Your task to perform on an android device: Add macbook pro to the cart on ebay.com, then select checkout. Image 0: 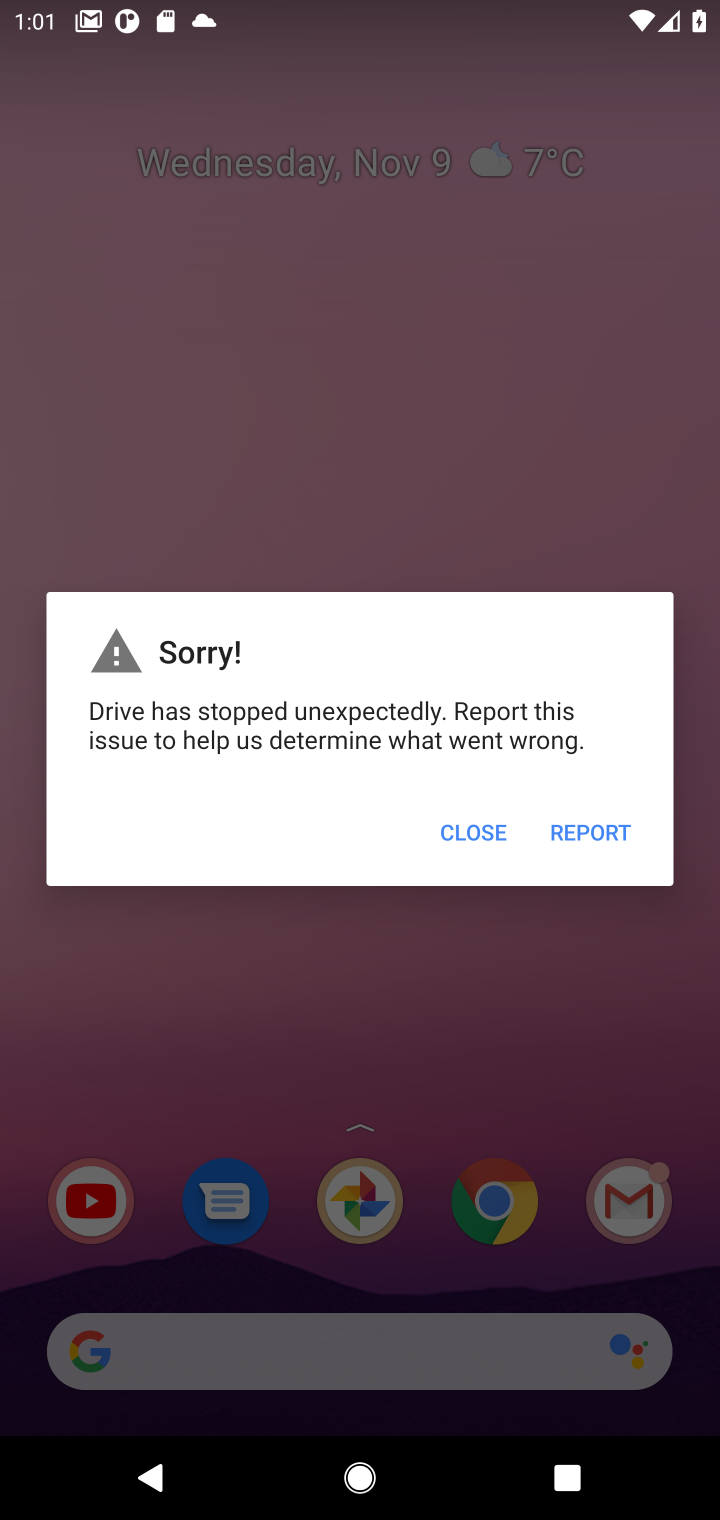
Step 0: click (458, 824)
Your task to perform on an android device: Add macbook pro to the cart on ebay.com, then select checkout. Image 1: 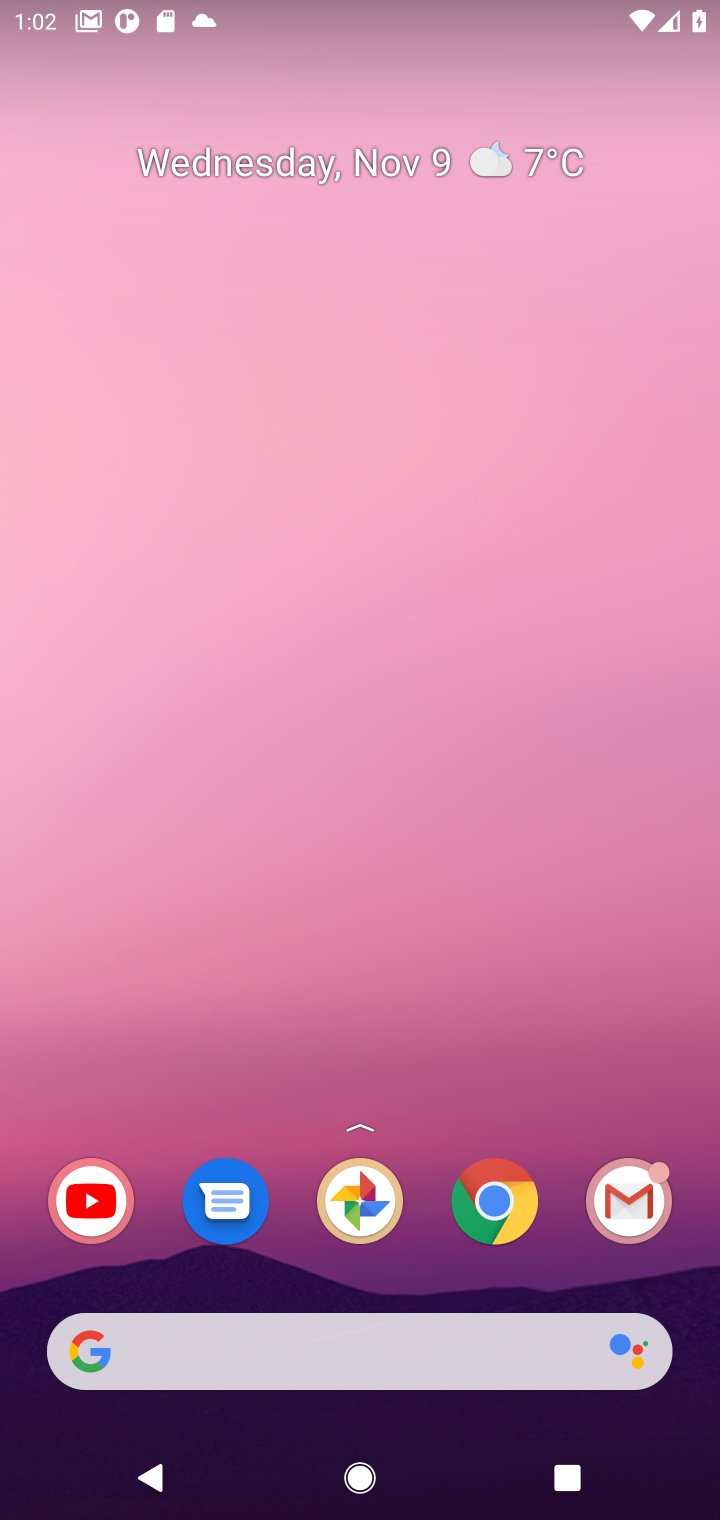
Step 1: drag from (334, 1253) to (255, 199)
Your task to perform on an android device: Add macbook pro to the cart on ebay.com, then select checkout. Image 2: 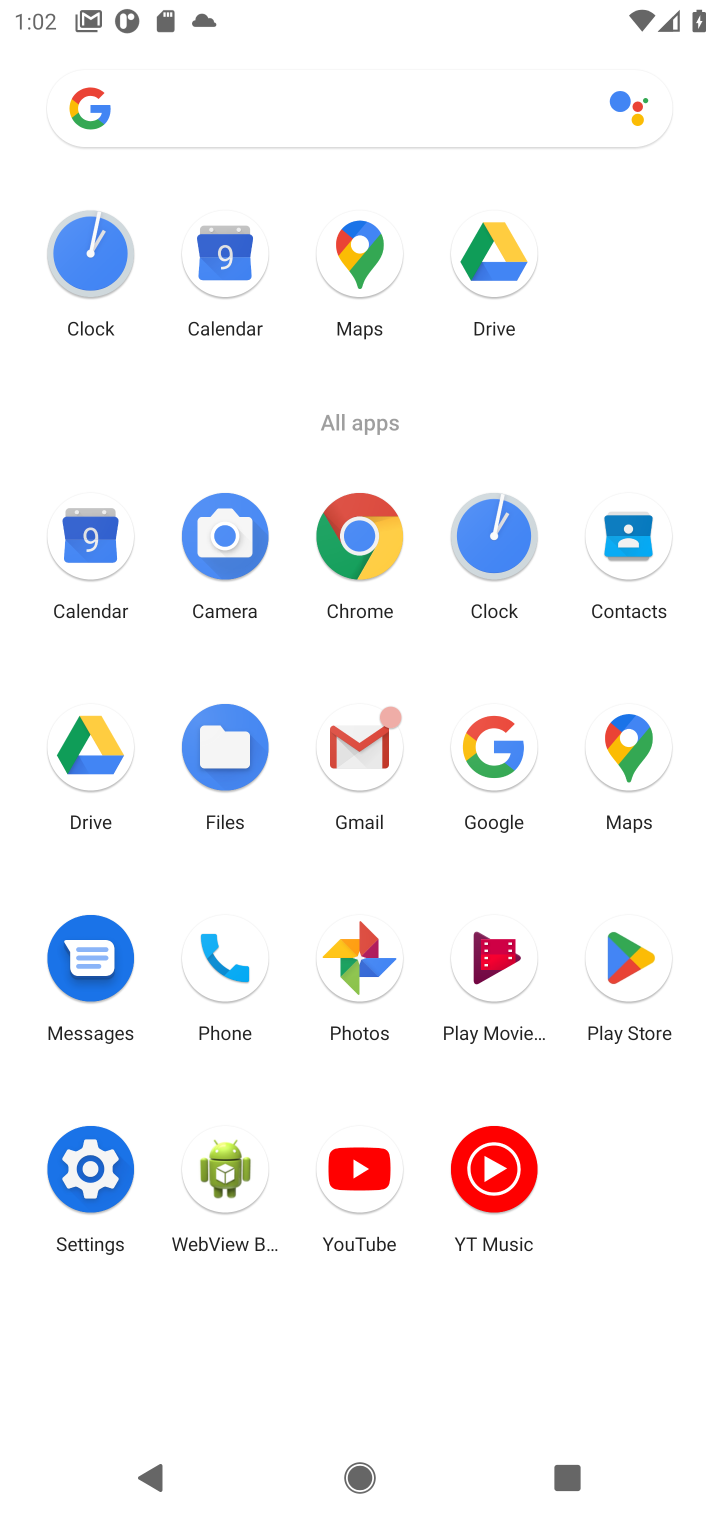
Step 2: click (484, 740)
Your task to perform on an android device: Add macbook pro to the cart on ebay.com, then select checkout. Image 3: 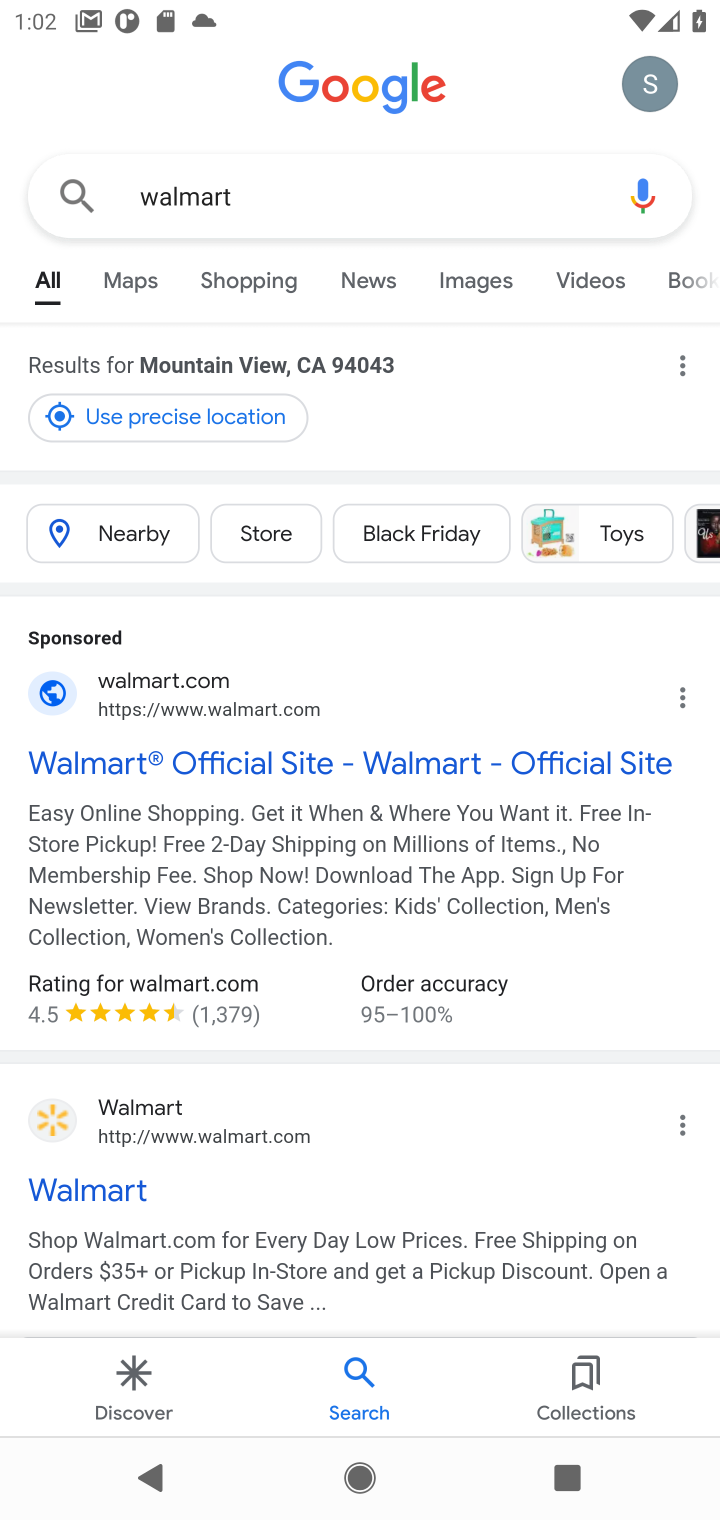
Step 3: click (297, 195)
Your task to perform on an android device: Add macbook pro to the cart on ebay.com, then select checkout. Image 4: 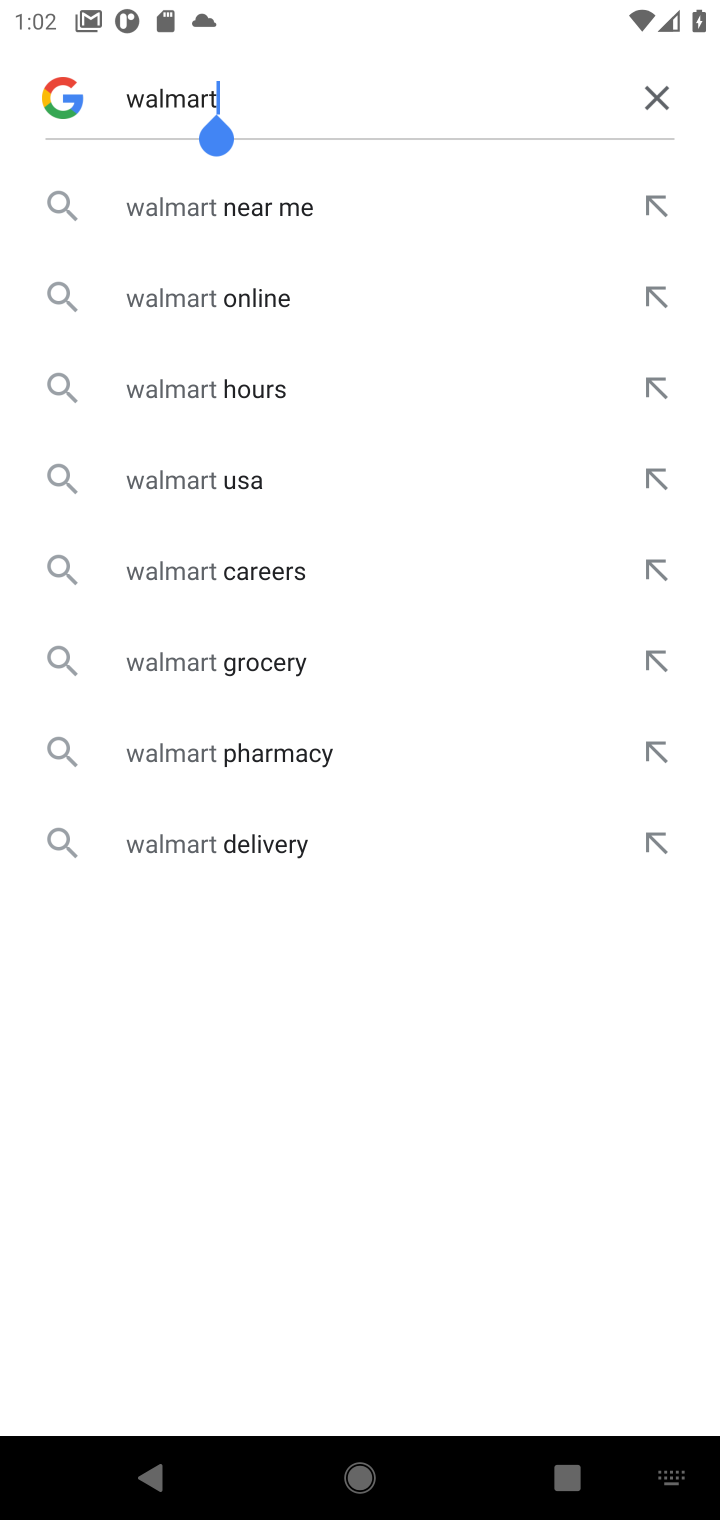
Step 4: click (661, 85)
Your task to perform on an android device: Add macbook pro to the cart on ebay.com, then select checkout. Image 5: 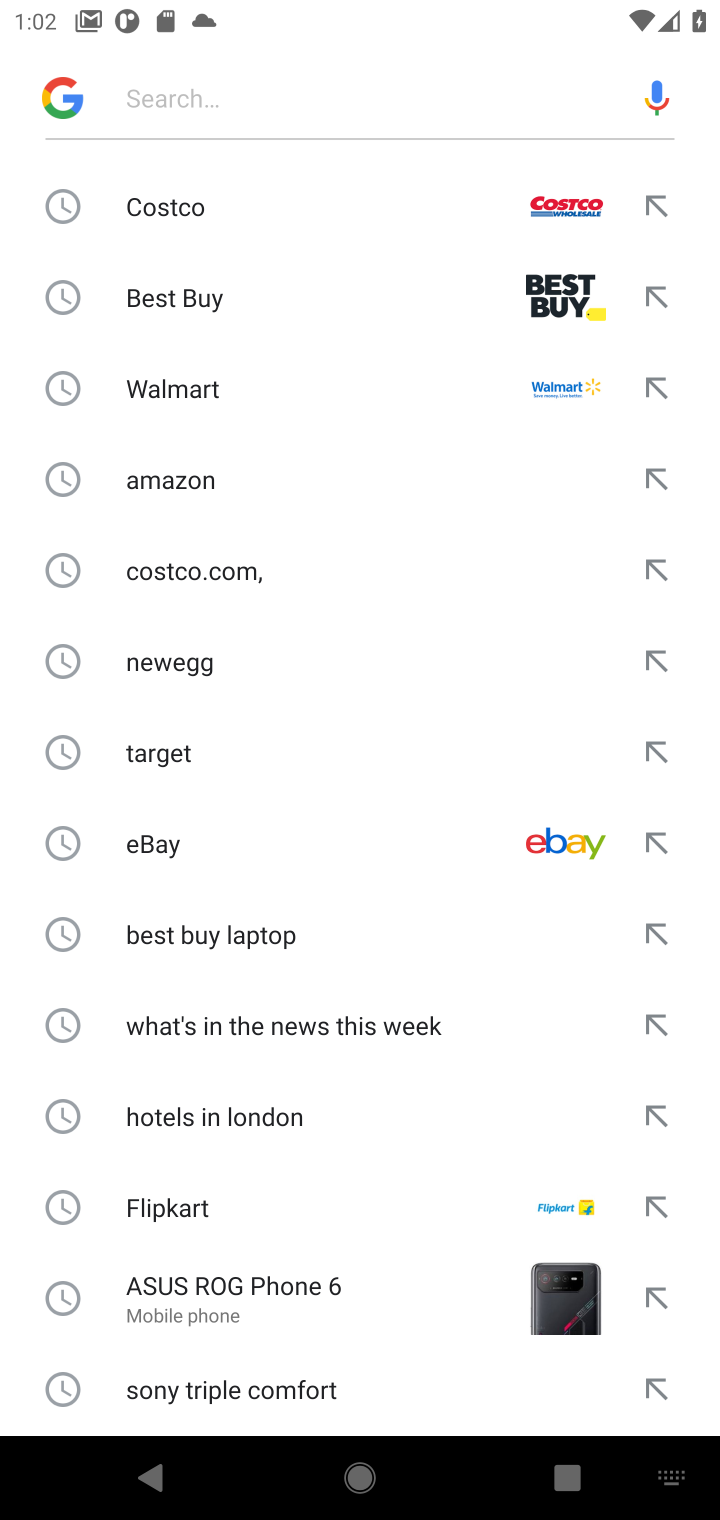
Step 5: type "ebay.com"
Your task to perform on an android device: Add macbook pro to the cart on ebay.com, then select checkout. Image 6: 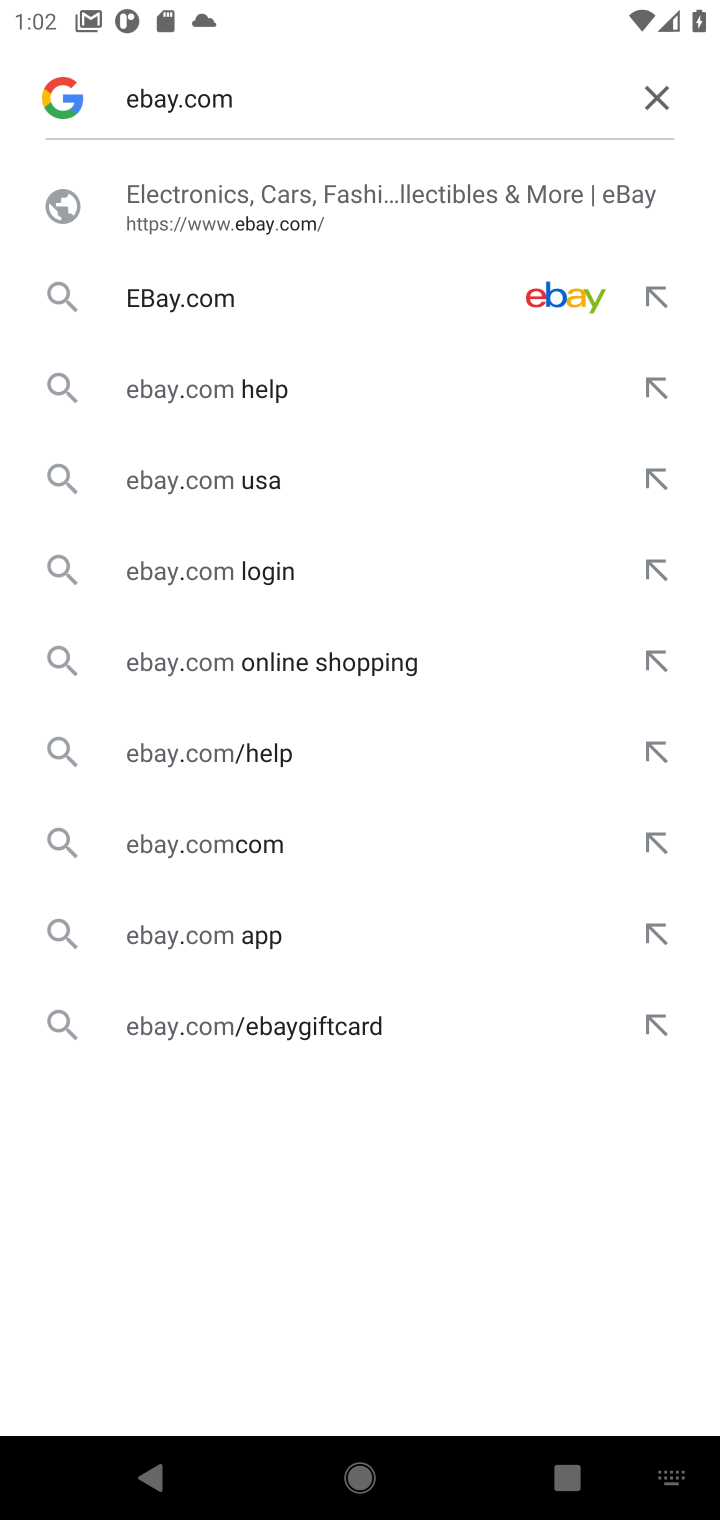
Step 6: click (486, 286)
Your task to perform on an android device: Add macbook pro to the cart on ebay.com, then select checkout. Image 7: 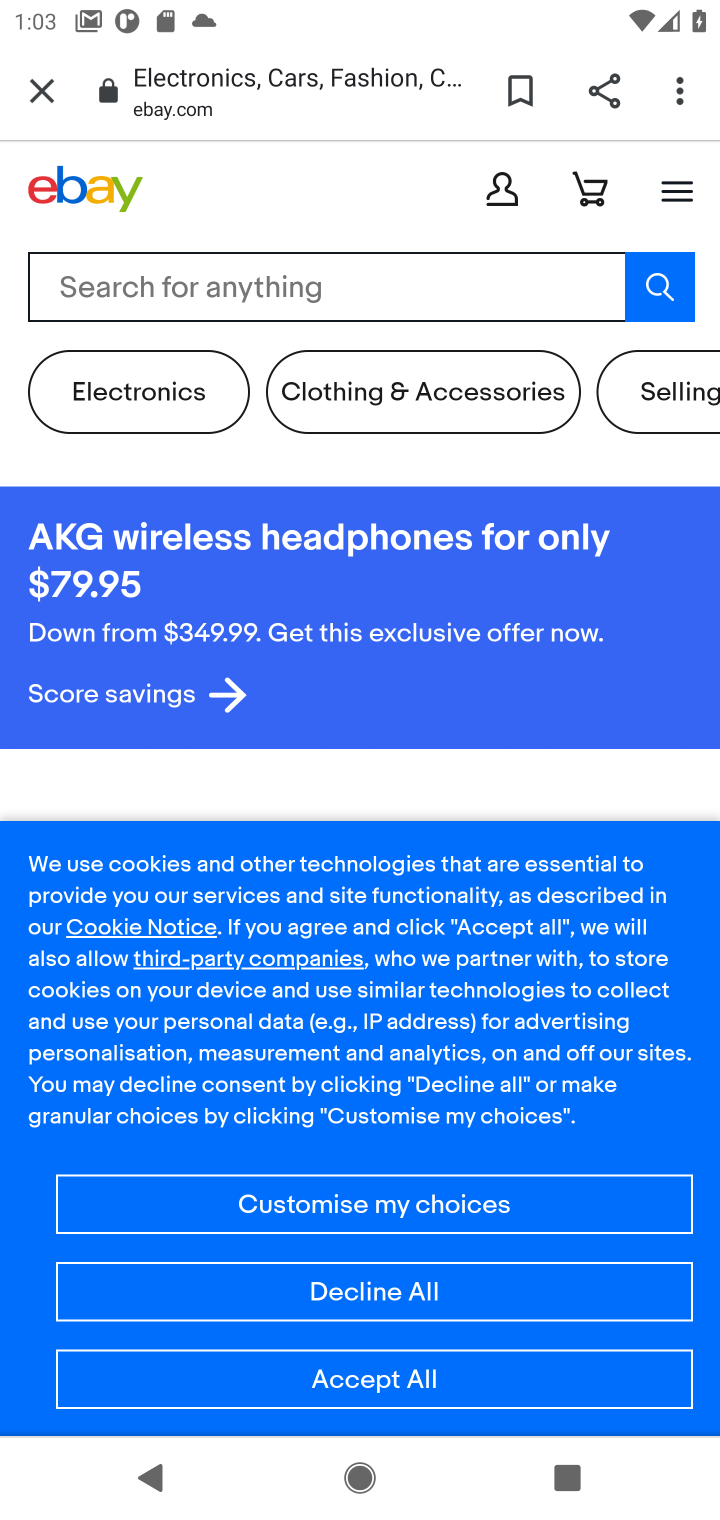
Step 7: click (281, 280)
Your task to perform on an android device: Add macbook pro to the cart on ebay.com, then select checkout. Image 8: 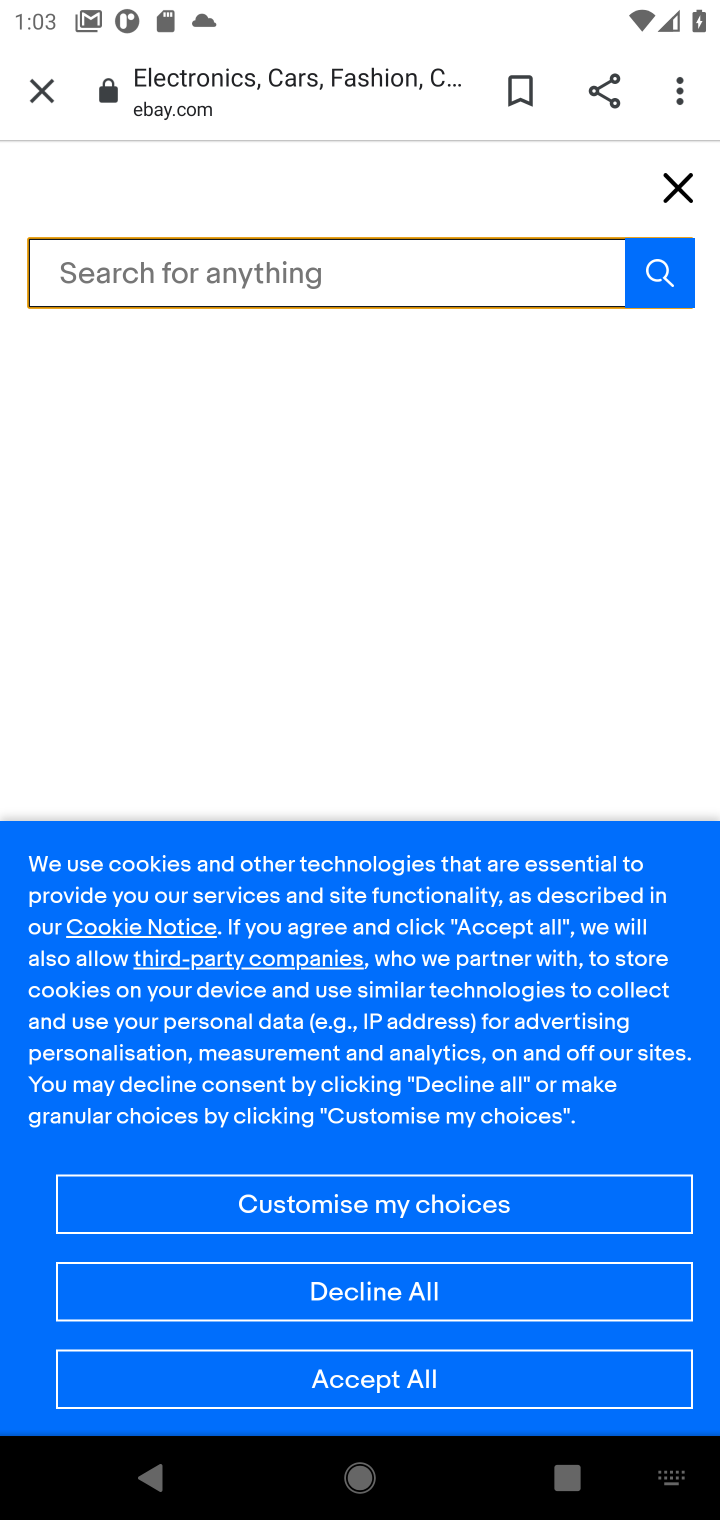
Step 8: type "macbook pro "
Your task to perform on an android device: Add macbook pro to the cart on ebay.com, then select checkout. Image 9: 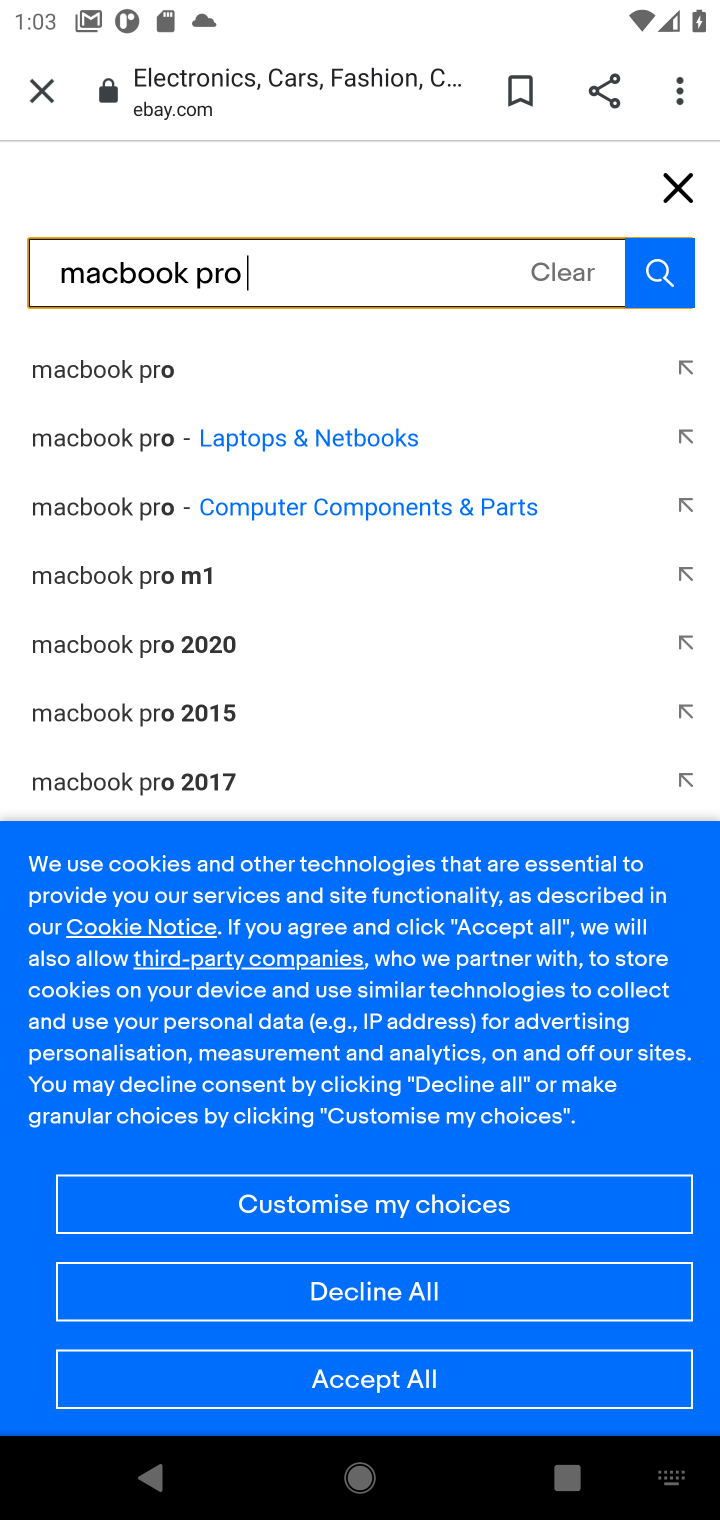
Step 9: click (161, 358)
Your task to perform on an android device: Add macbook pro to the cart on ebay.com, then select checkout. Image 10: 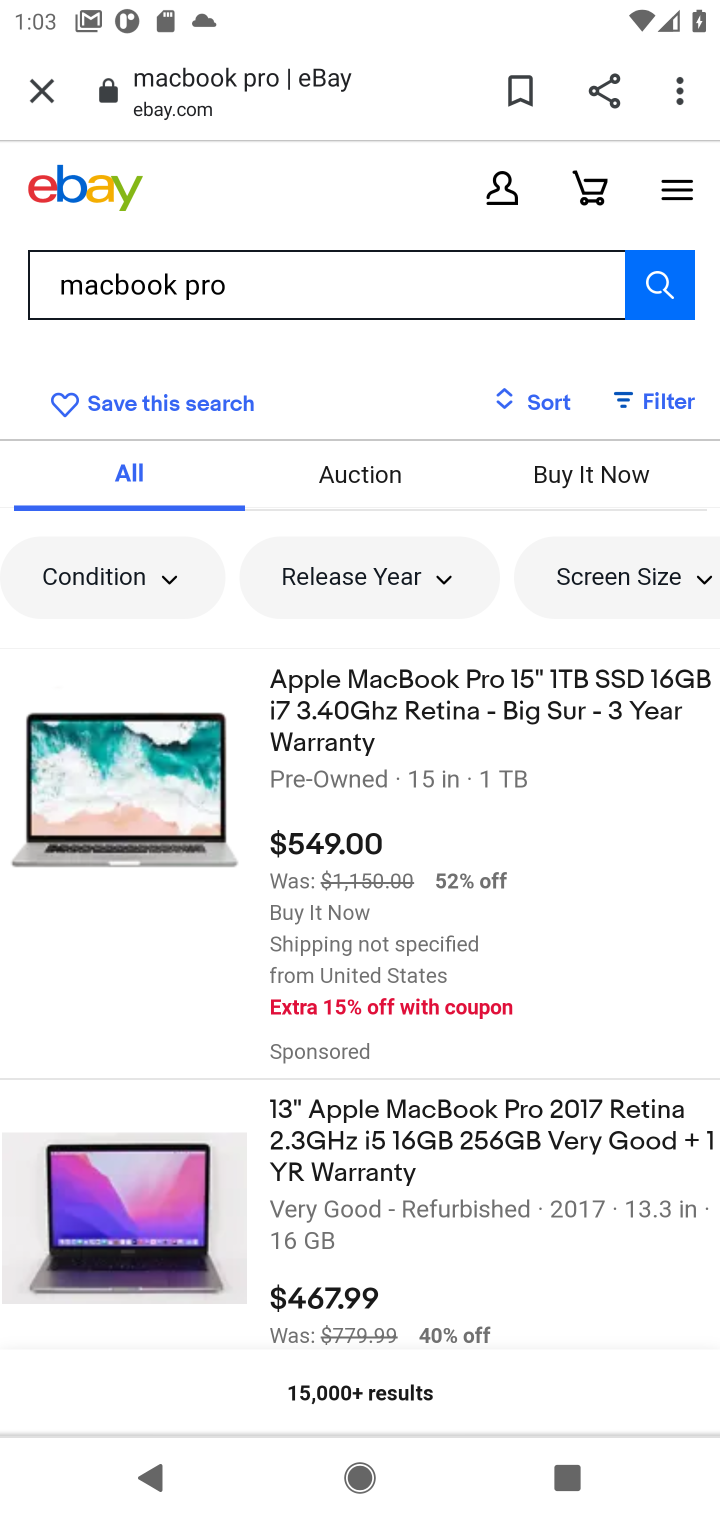
Step 10: click (335, 684)
Your task to perform on an android device: Add macbook pro to the cart on ebay.com, then select checkout. Image 11: 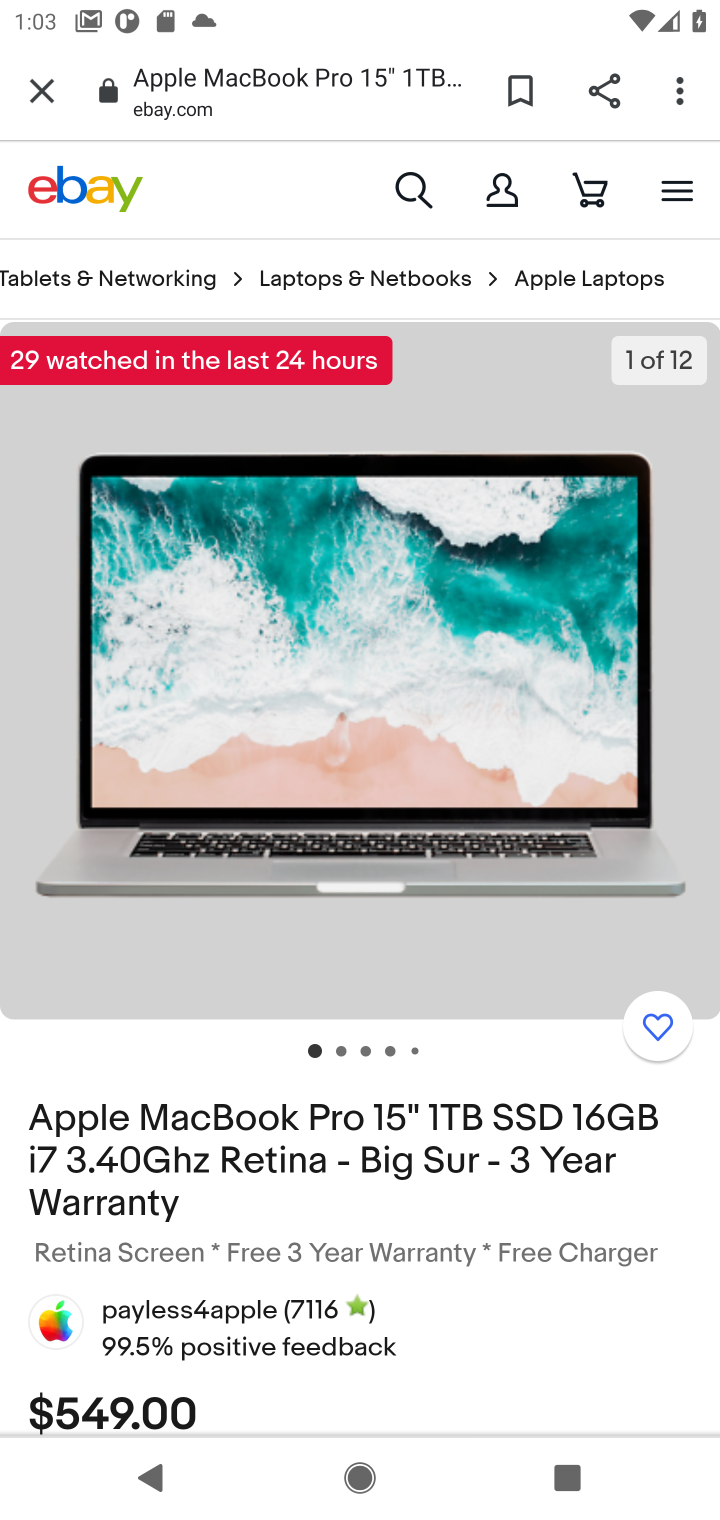
Step 11: drag from (338, 859) to (351, 758)
Your task to perform on an android device: Add macbook pro to the cart on ebay.com, then select checkout. Image 12: 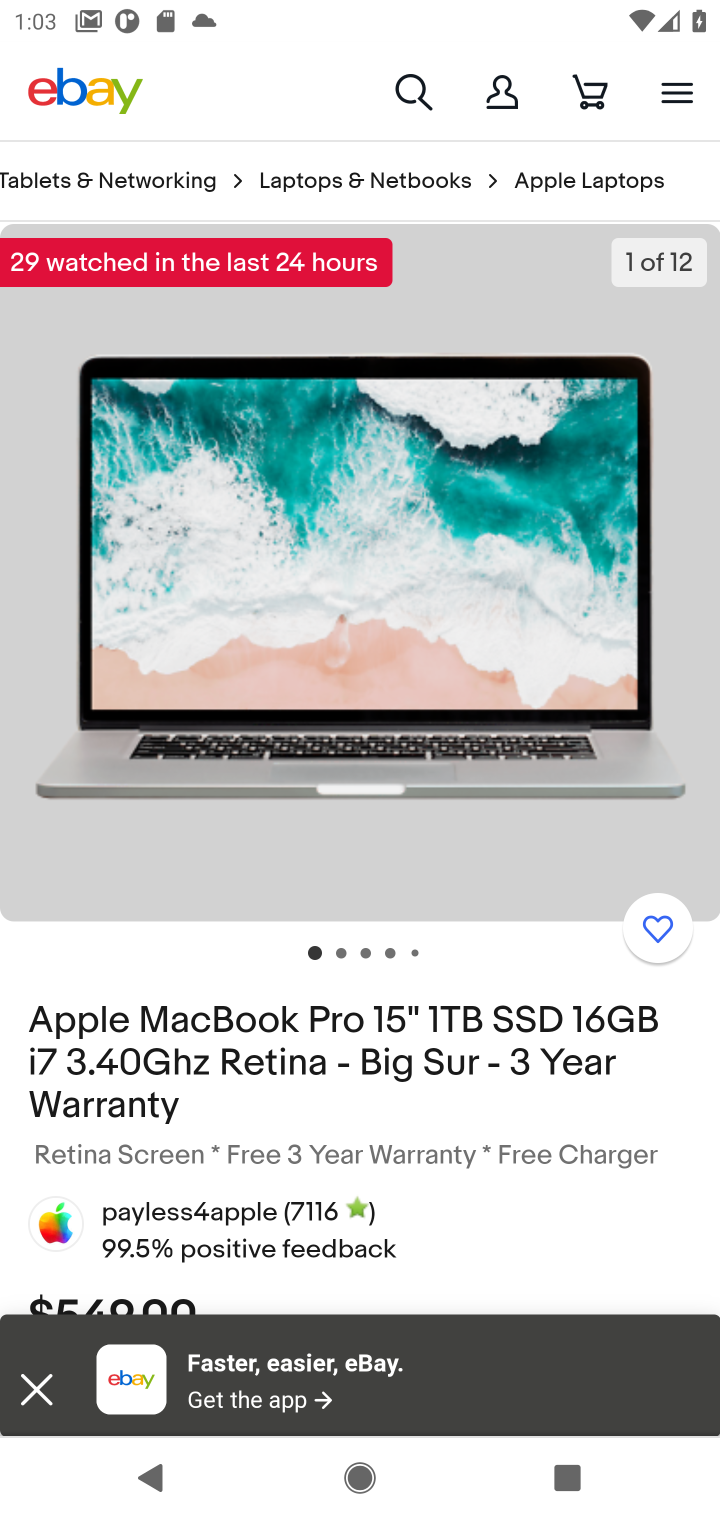
Step 12: drag from (446, 883) to (427, 654)
Your task to perform on an android device: Add macbook pro to the cart on ebay.com, then select checkout. Image 13: 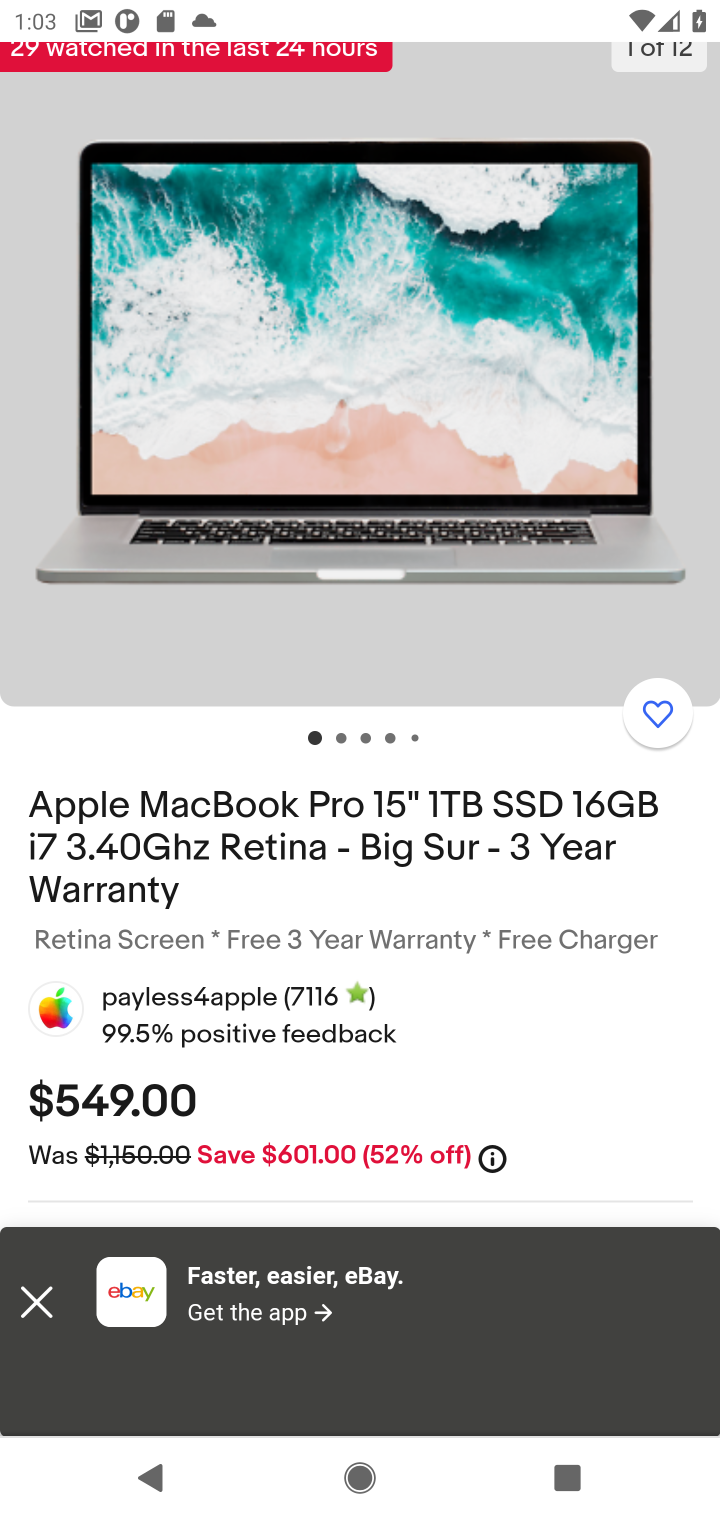
Step 13: click (427, 540)
Your task to perform on an android device: Add macbook pro to the cart on ebay.com, then select checkout. Image 14: 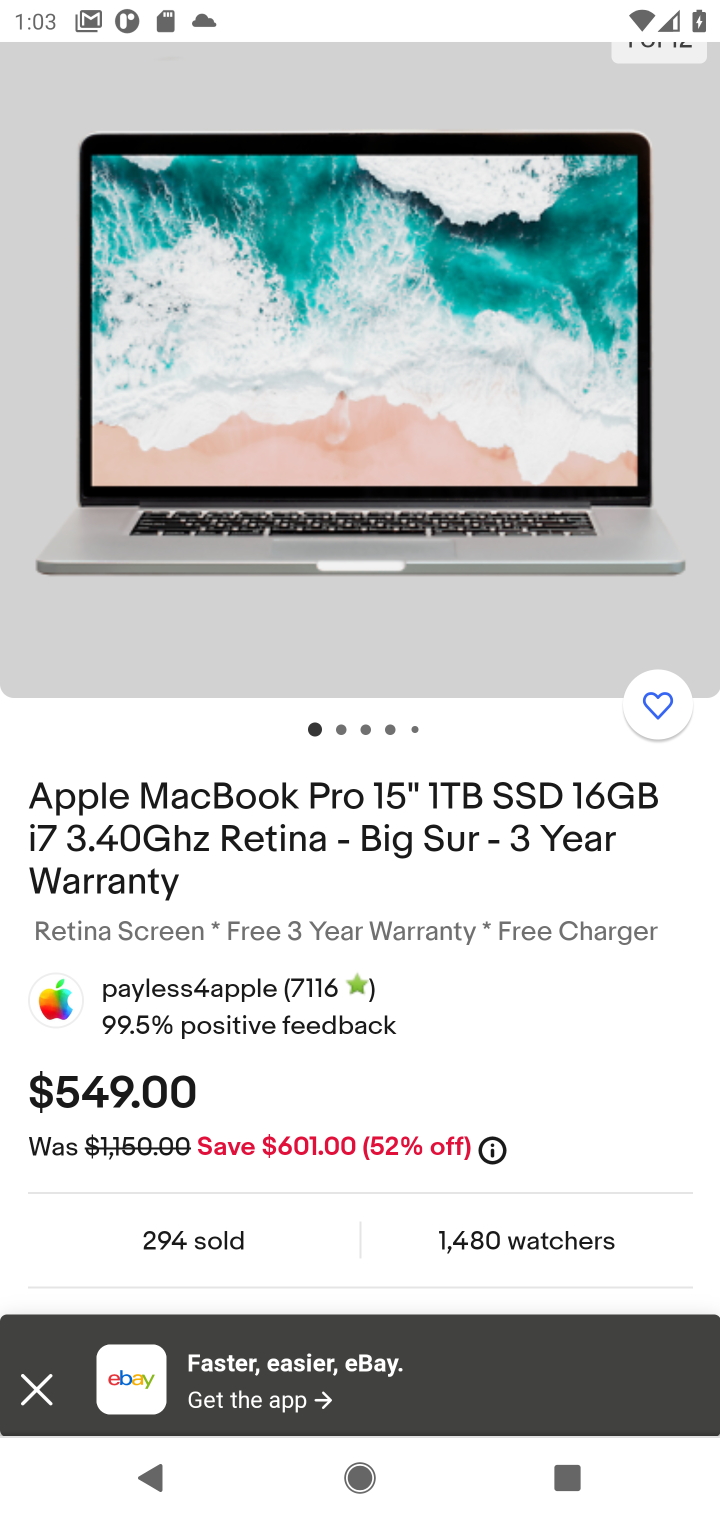
Step 14: drag from (477, 886) to (464, 323)
Your task to perform on an android device: Add macbook pro to the cart on ebay.com, then select checkout. Image 15: 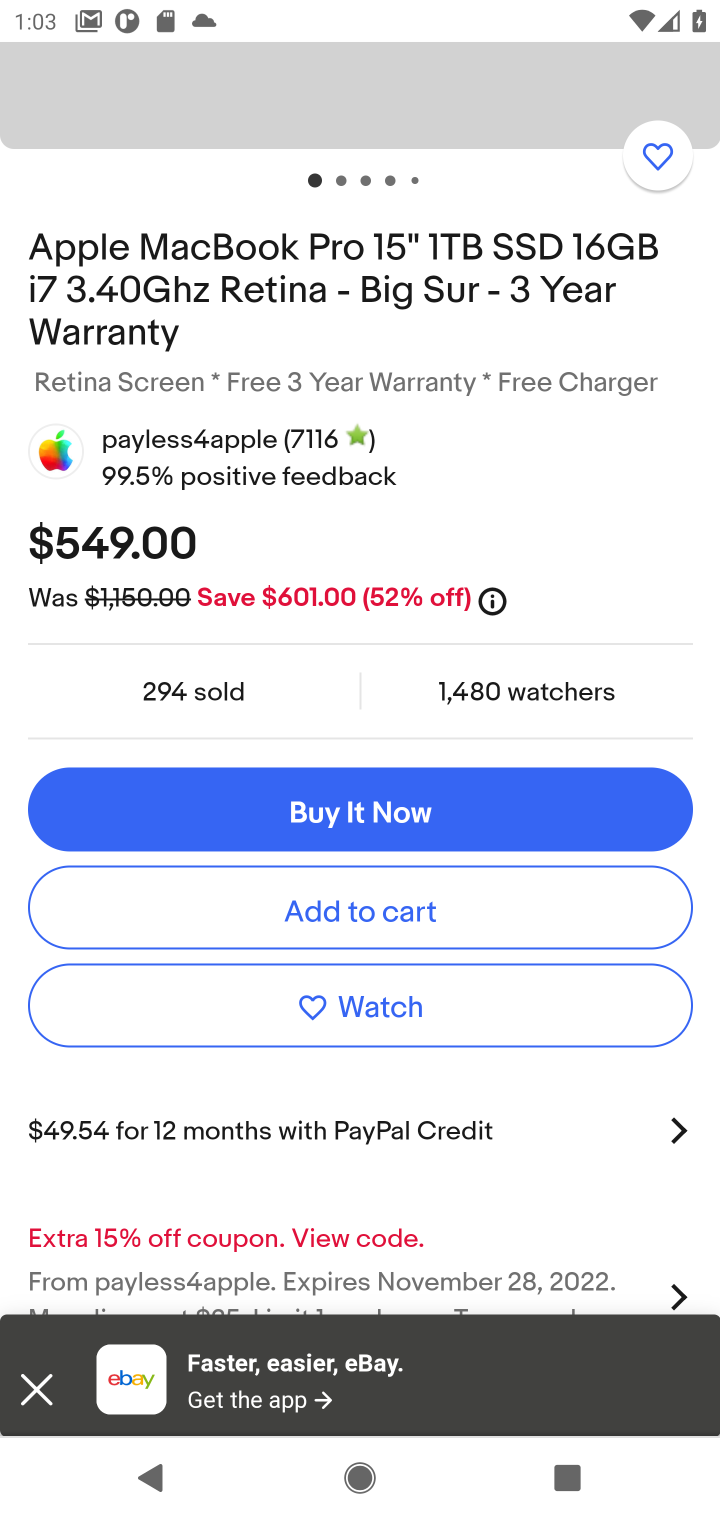
Step 15: click (364, 911)
Your task to perform on an android device: Add macbook pro to the cart on ebay.com, then select checkout. Image 16: 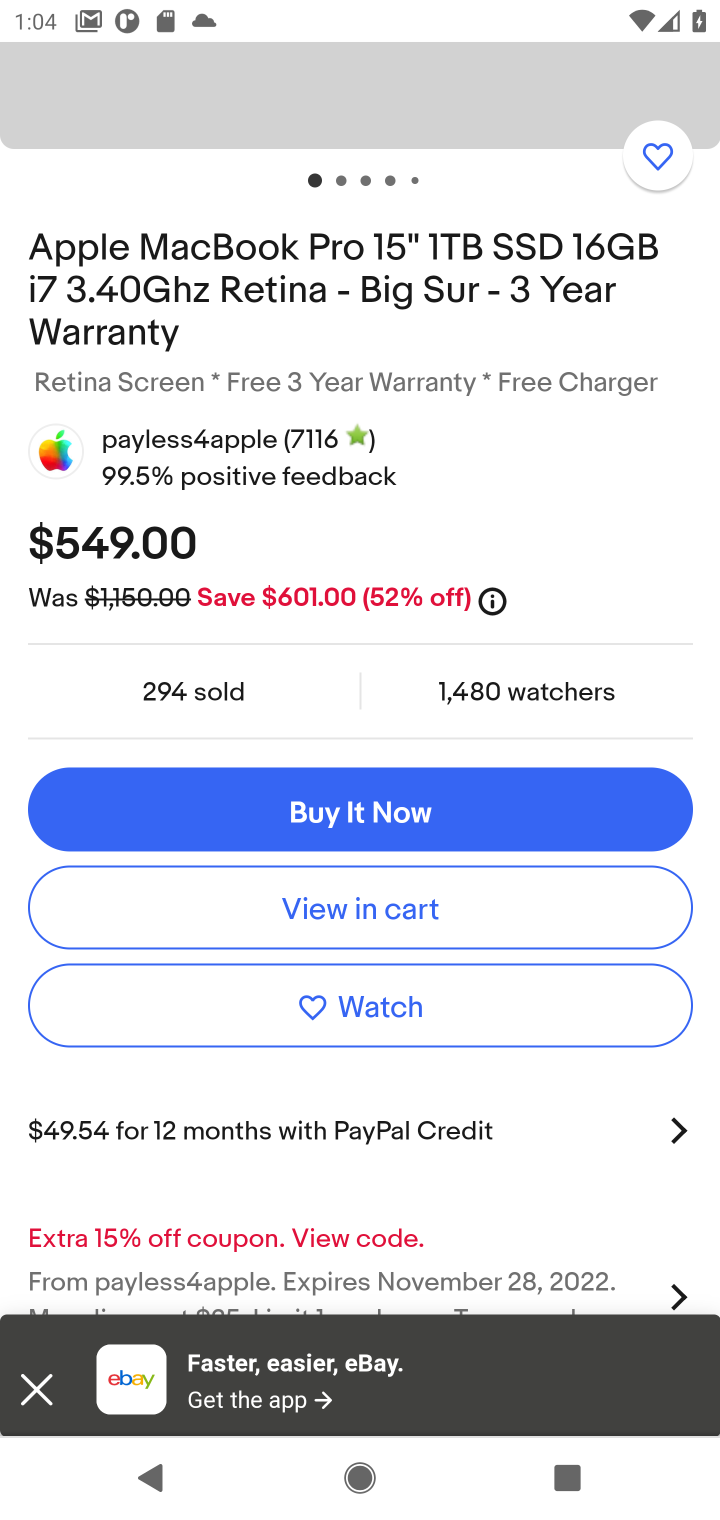
Step 16: click (364, 911)
Your task to perform on an android device: Add macbook pro to the cart on ebay.com, then select checkout. Image 17: 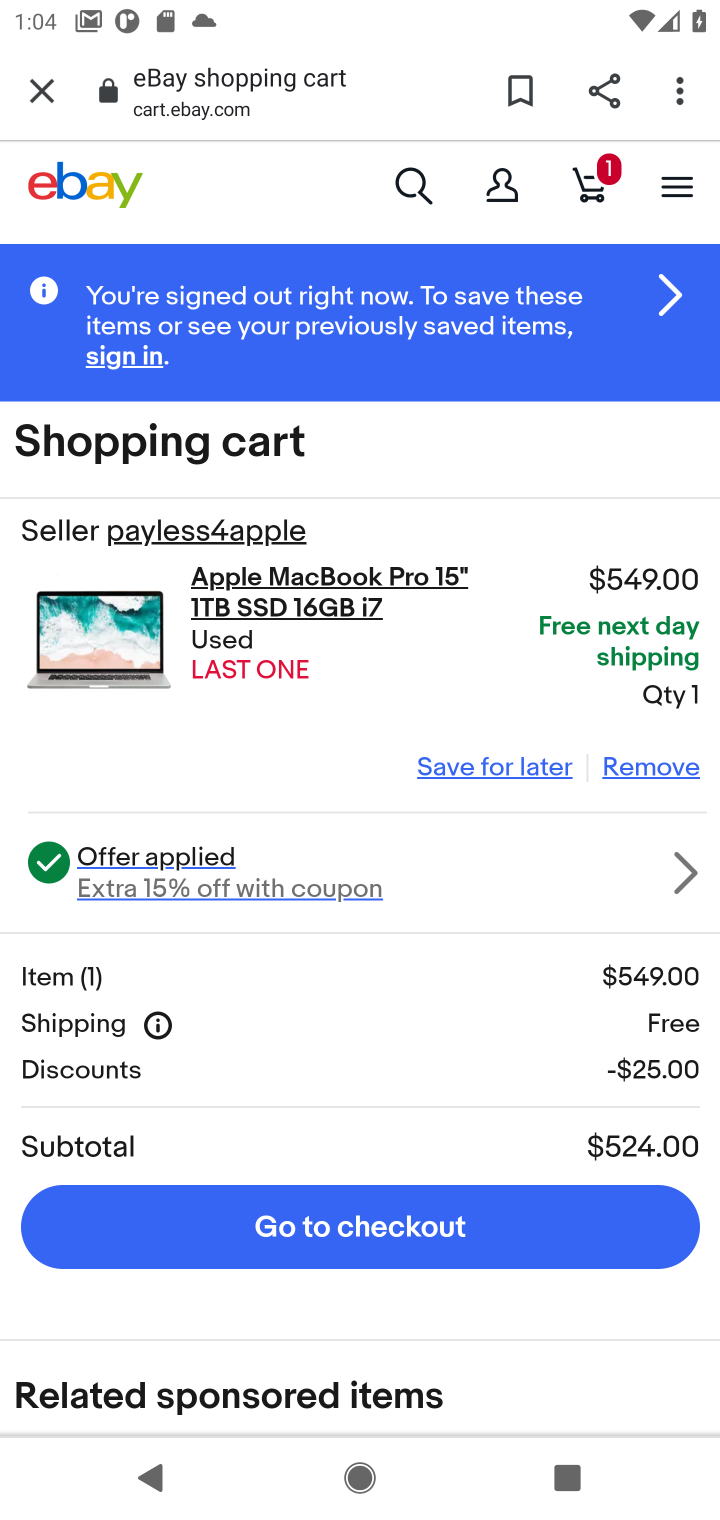
Step 17: click (392, 1174)
Your task to perform on an android device: Add macbook pro to the cart on ebay.com, then select checkout. Image 18: 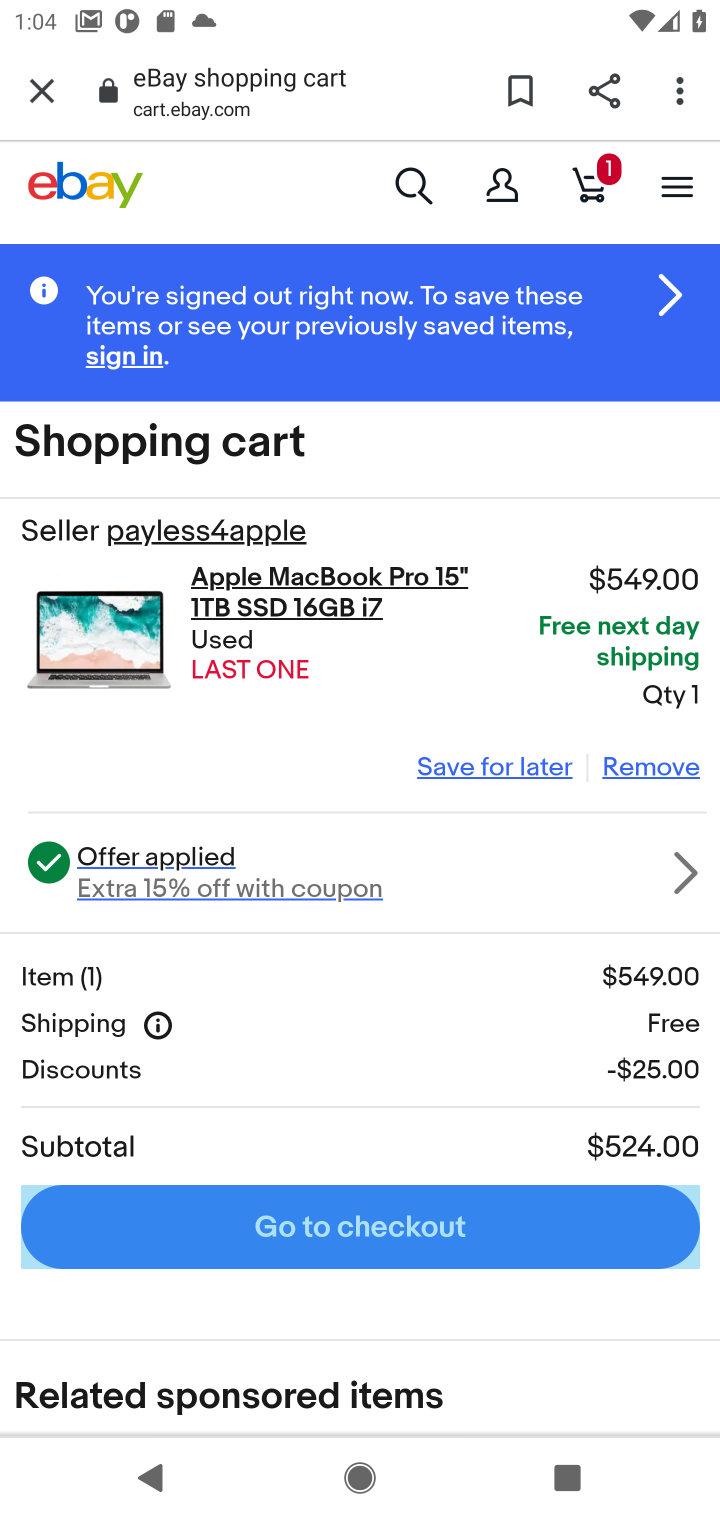
Step 18: click (350, 1217)
Your task to perform on an android device: Add macbook pro to the cart on ebay.com, then select checkout. Image 19: 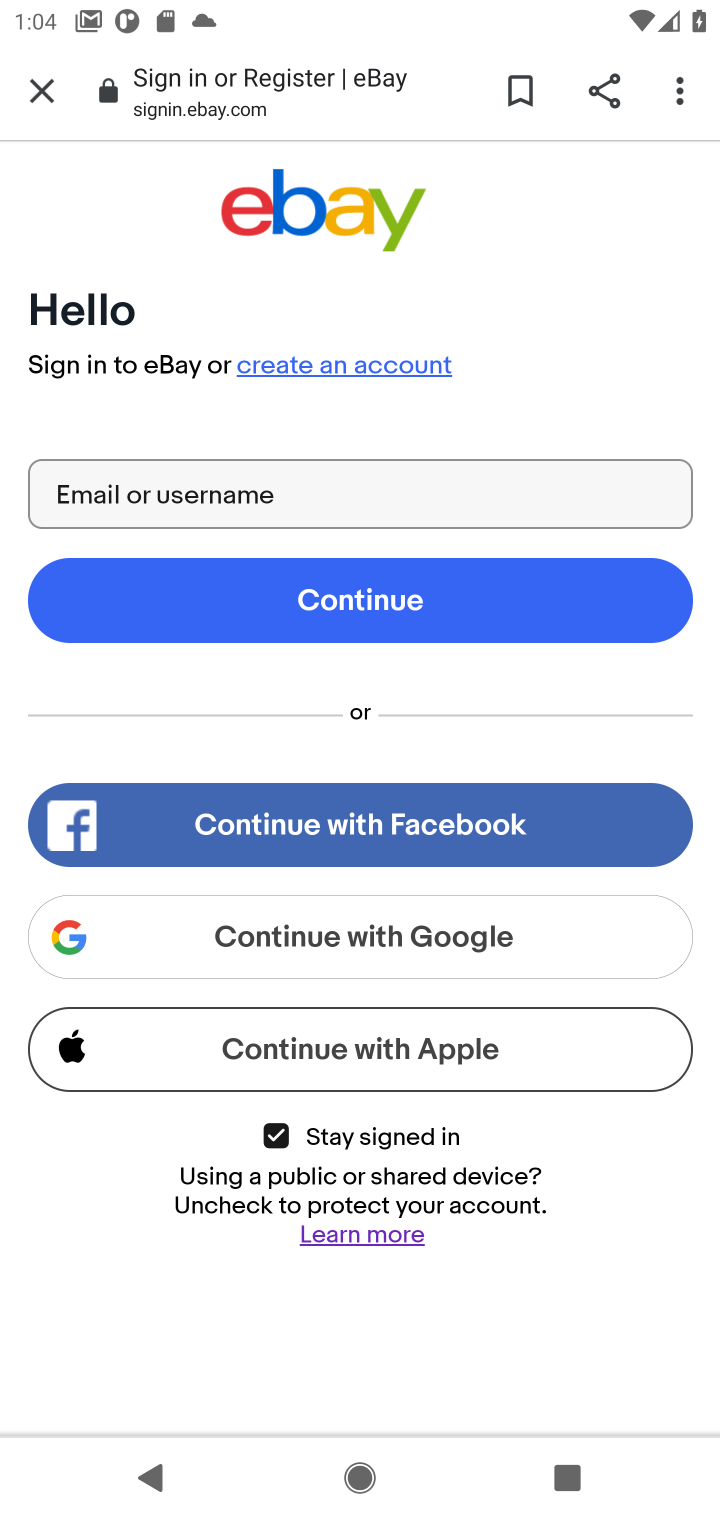
Step 19: task complete